Your task to perform on an android device: open a bookmark in the chrome app Image 0: 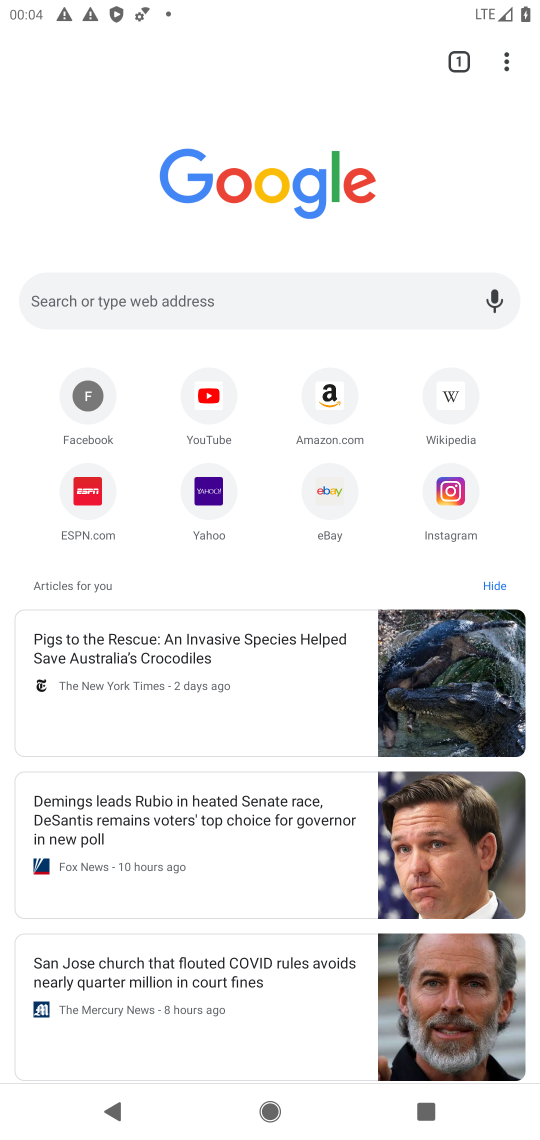
Step 0: click (513, 58)
Your task to perform on an android device: open a bookmark in the chrome app Image 1: 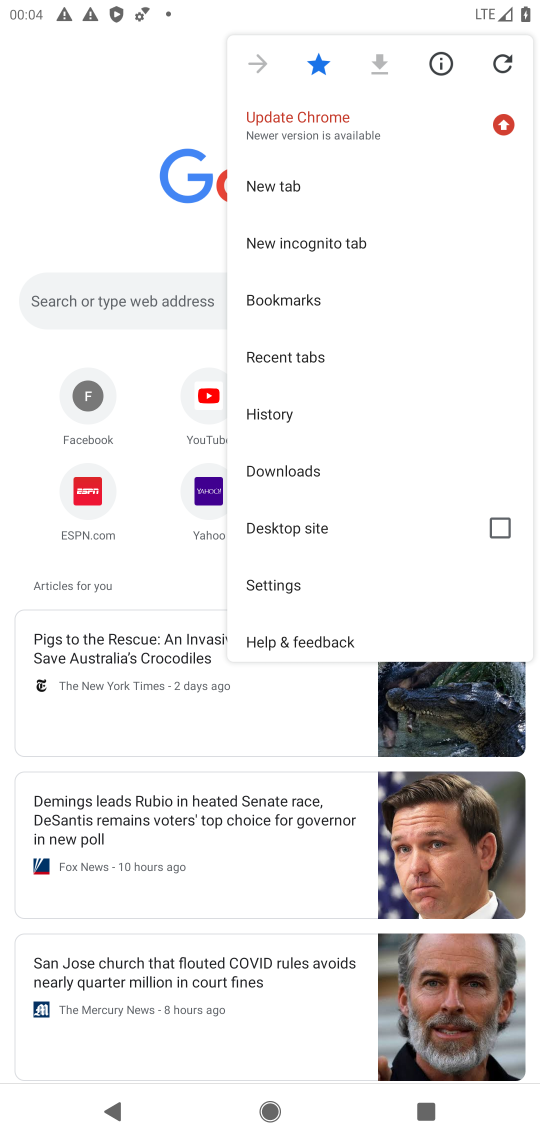
Step 1: click (280, 299)
Your task to perform on an android device: open a bookmark in the chrome app Image 2: 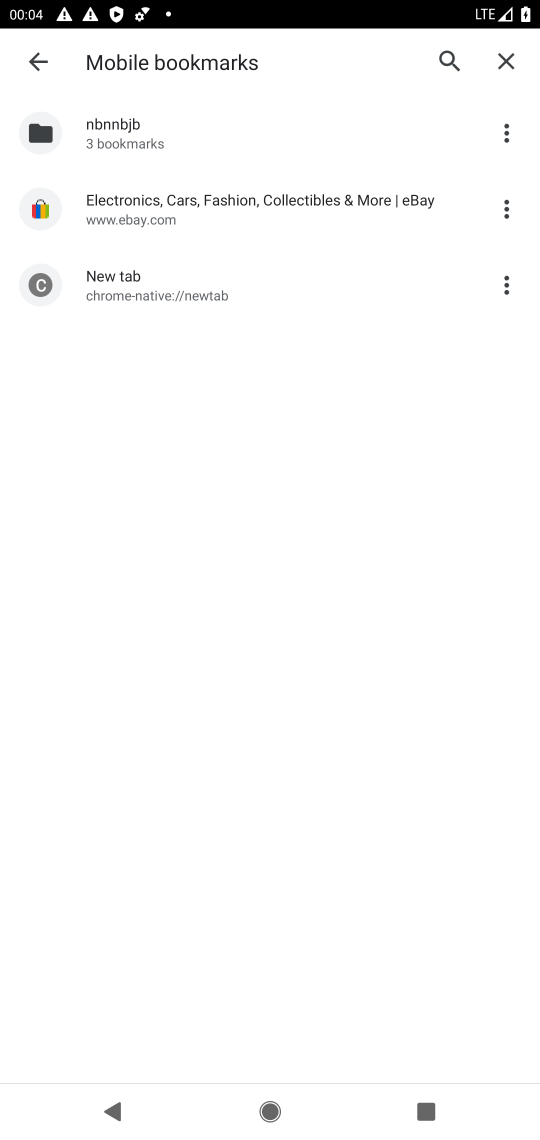
Step 2: click (501, 214)
Your task to perform on an android device: open a bookmark in the chrome app Image 3: 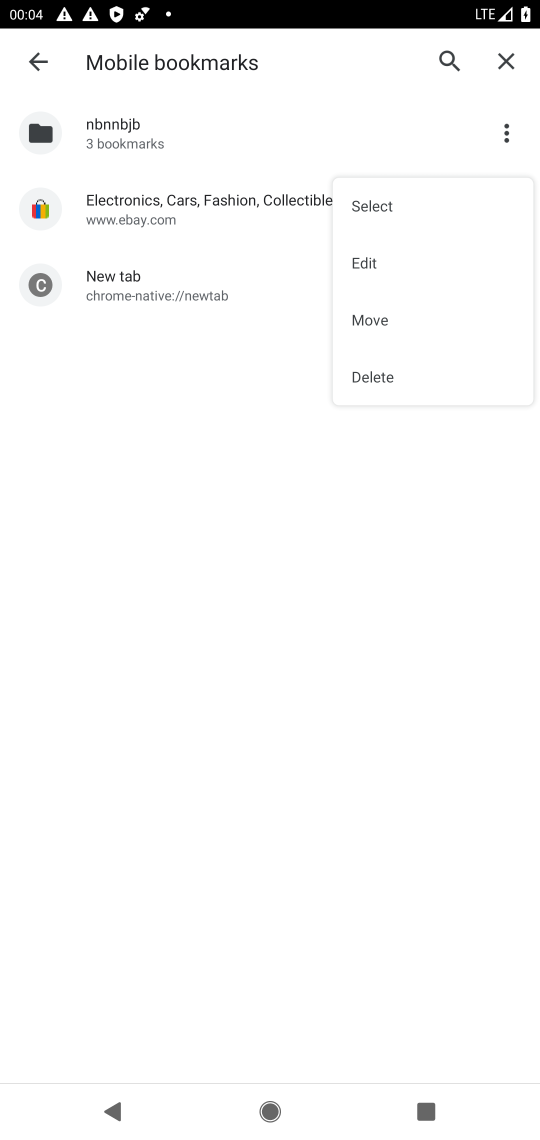
Step 3: click (393, 206)
Your task to perform on an android device: open a bookmark in the chrome app Image 4: 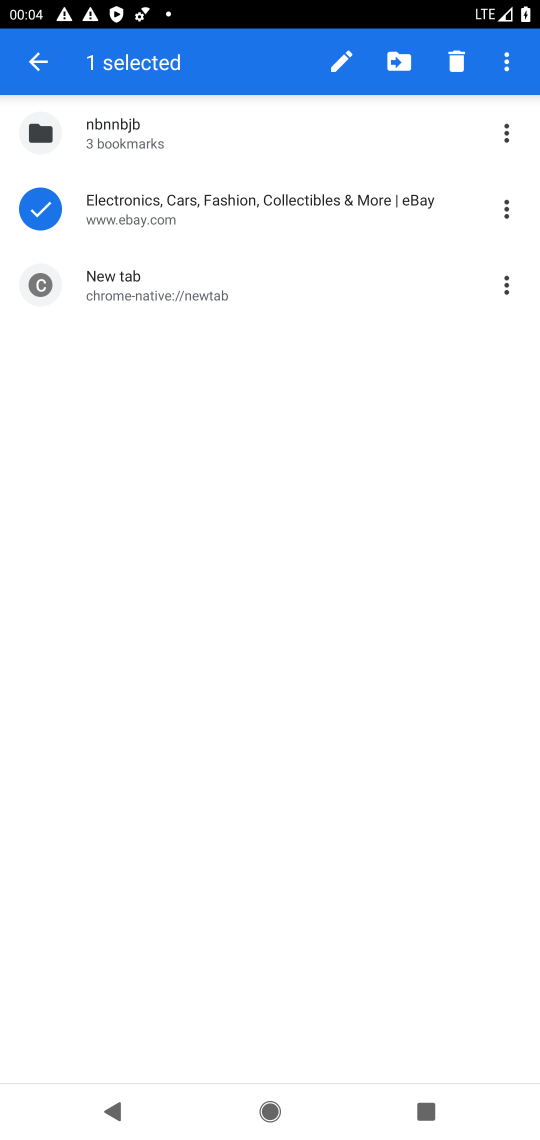
Step 4: click (270, 290)
Your task to perform on an android device: open a bookmark in the chrome app Image 5: 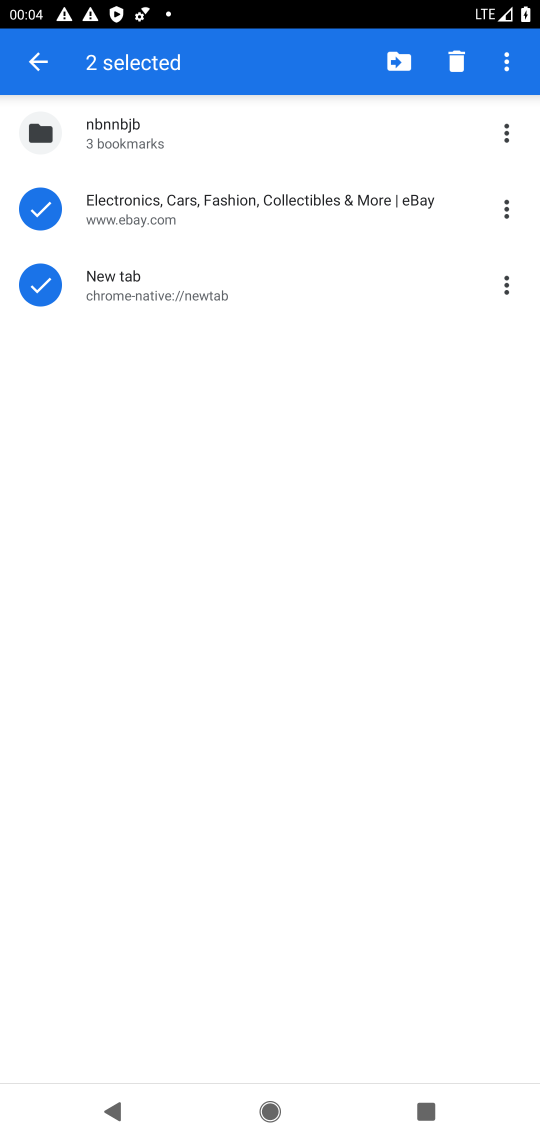
Step 5: click (402, 62)
Your task to perform on an android device: open a bookmark in the chrome app Image 6: 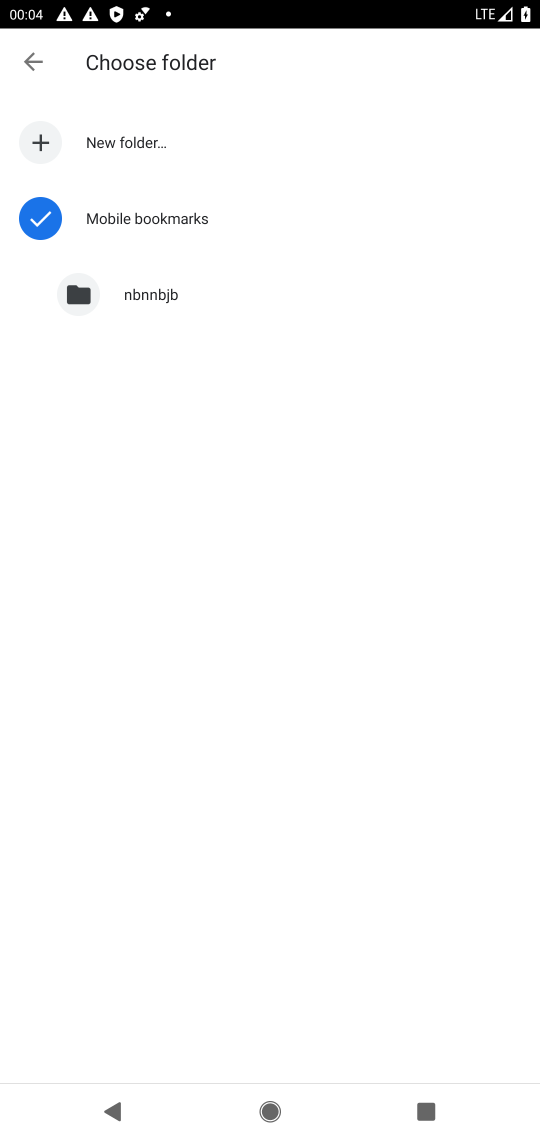
Step 6: click (179, 286)
Your task to perform on an android device: open a bookmark in the chrome app Image 7: 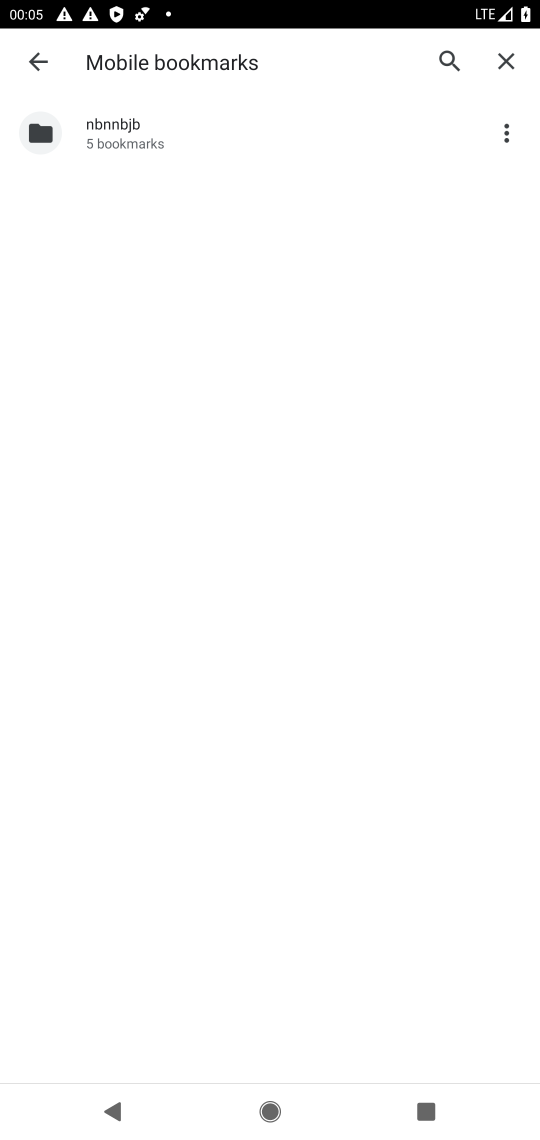
Step 7: task complete